Your task to perform on an android device: toggle data saver in the chrome app Image 0: 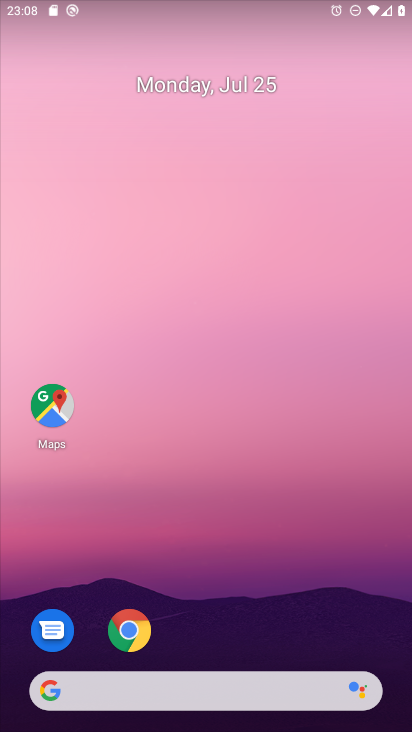
Step 0: click (137, 630)
Your task to perform on an android device: toggle data saver in the chrome app Image 1: 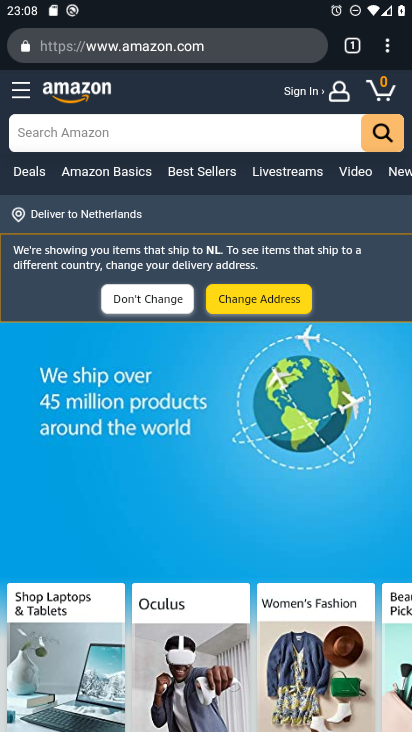
Step 1: drag from (385, 40) to (261, 589)
Your task to perform on an android device: toggle data saver in the chrome app Image 2: 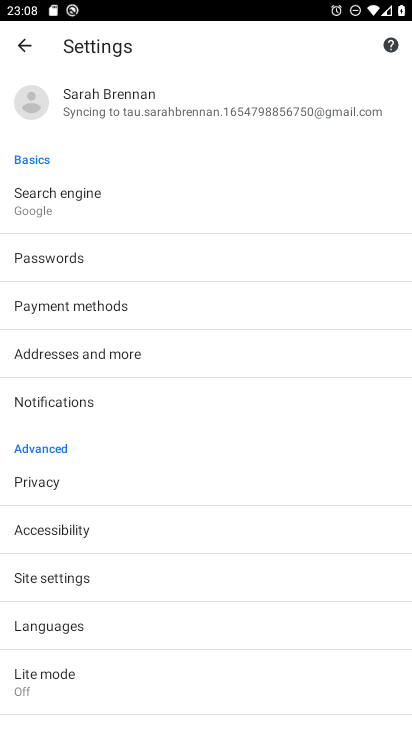
Step 2: click (81, 693)
Your task to perform on an android device: toggle data saver in the chrome app Image 3: 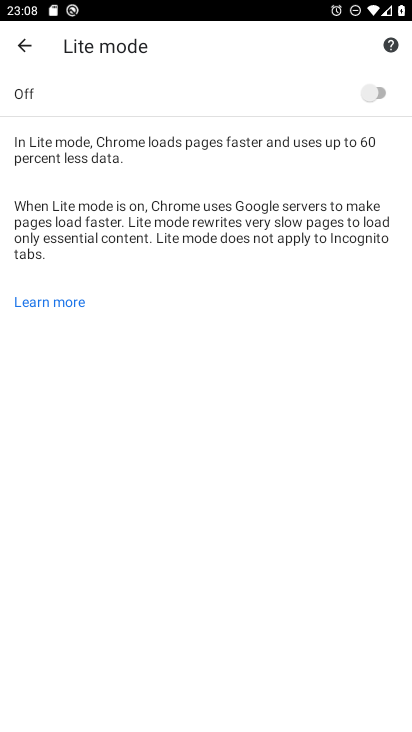
Step 3: click (388, 88)
Your task to perform on an android device: toggle data saver in the chrome app Image 4: 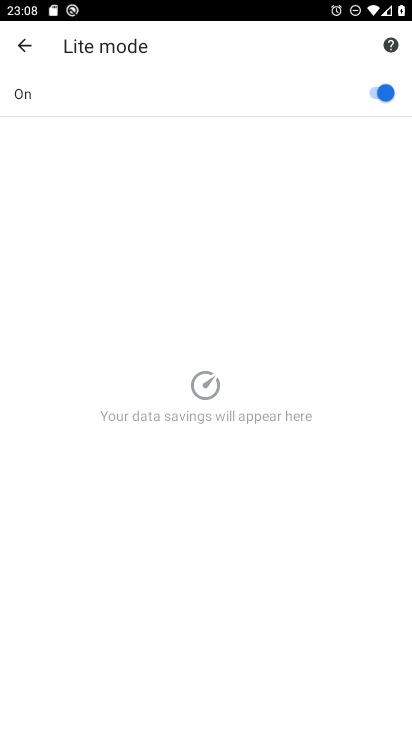
Step 4: task complete